Your task to perform on an android device: Show me popular games on the Play Store Image 0: 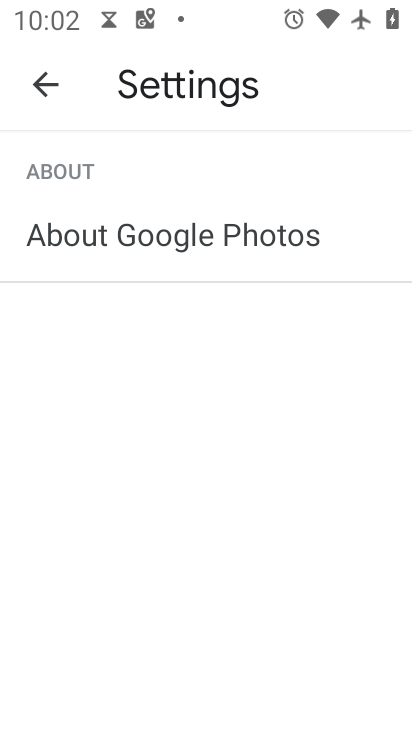
Step 0: press home button
Your task to perform on an android device: Show me popular games on the Play Store Image 1: 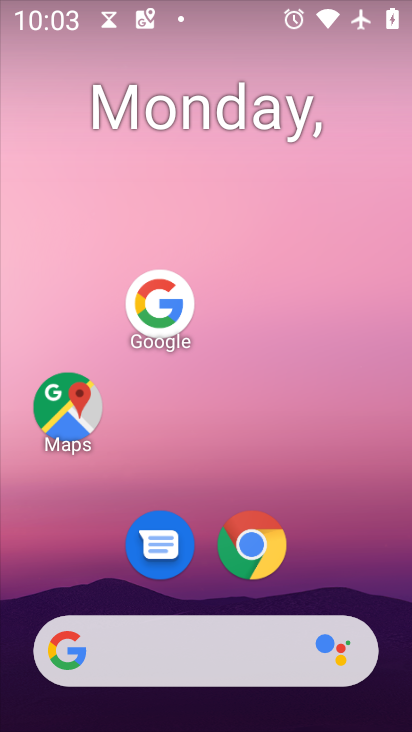
Step 1: drag from (149, 671) to (315, 31)
Your task to perform on an android device: Show me popular games on the Play Store Image 2: 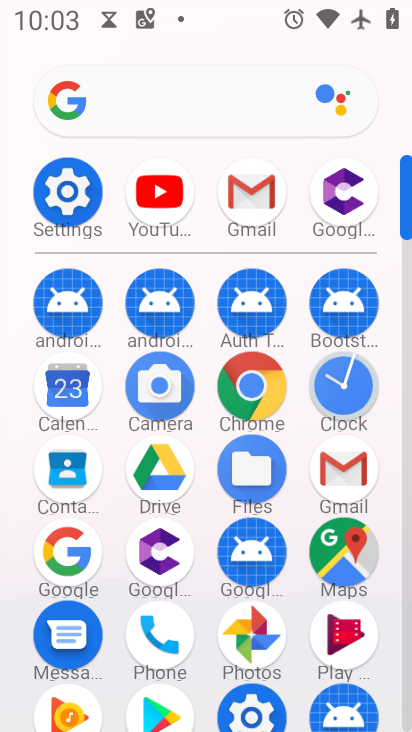
Step 2: drag from (200, 634) to (332, 118)
Your task to perform on an android device: Show me popular games on the Play Store Image 3: 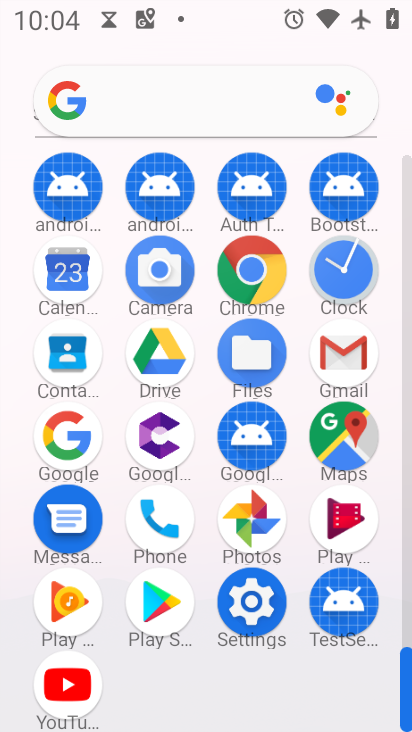
Step 3: click (154, 614)
Your task to perform on an android device: Show me popular games on the Play Store Image 4: 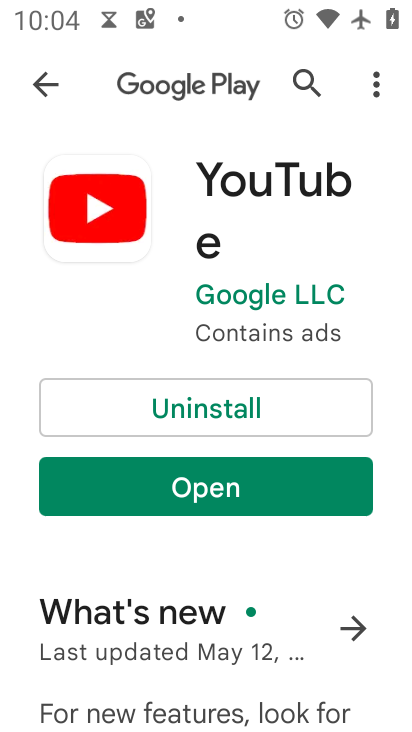
Step 4: click (51, 75)
Your task to perform on an android device: Show me popular games on the Play Store Image 5: 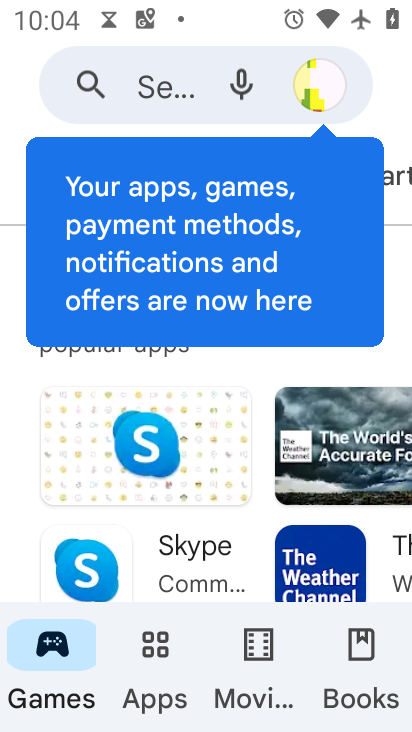
Step 5: drag from (108, 534) to (250, 35)
Your task to perform on an android device: Show me popular games on the Play Store Image 6: 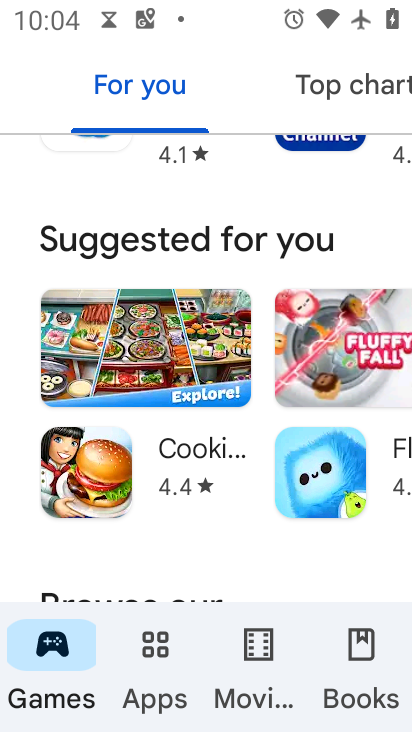
Step 6: drag from (157, 571) to (296, 69)
Your task to perform on an android device: Show me popular games on the Play Store Image 7: 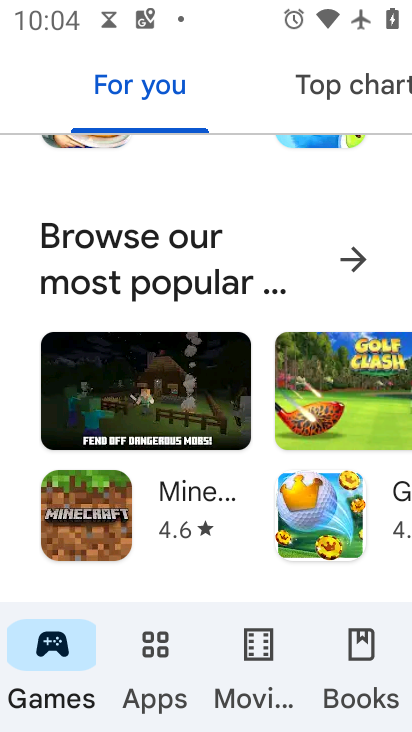
Step 7: click (354, 256)
Your task to perform on an android device: Show me popular games on the Play Store Image 8: 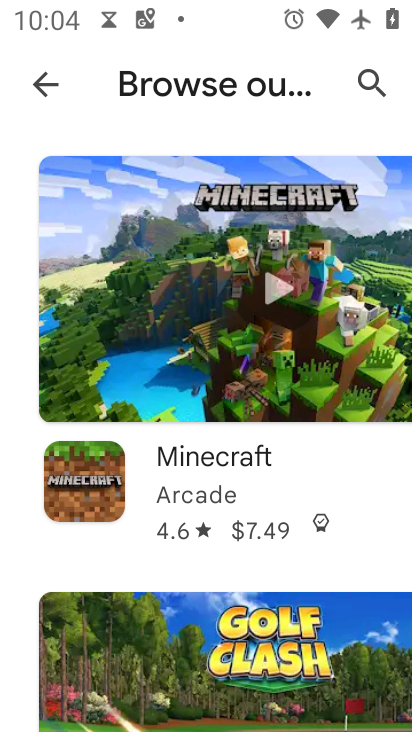
Step 8: task complete